Your task to perform on an android device: Open the calendar and show me this week's events? Image 0: 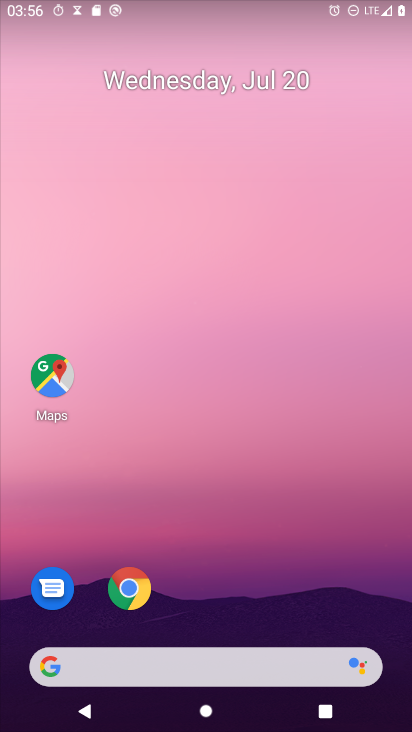
Step 0: drag from (190, 633) to (134, 51)
Your task to perform on an android device: Open the calendar and show me this week's events? Image 1: 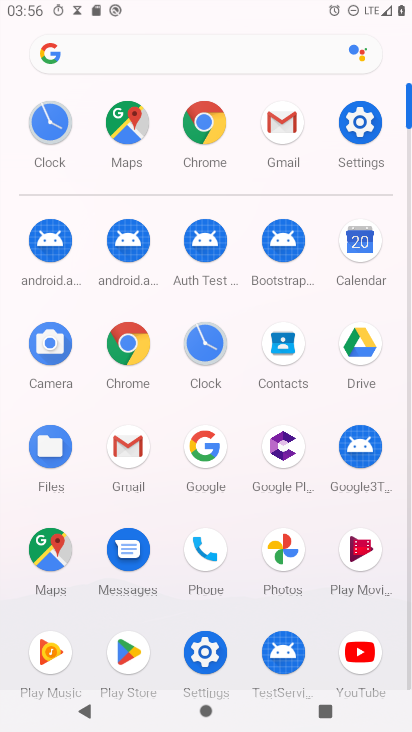
Step 1: click (364, 239)
Your task to perform on an android device: Open the calendar and show me this week's events? Image 2: 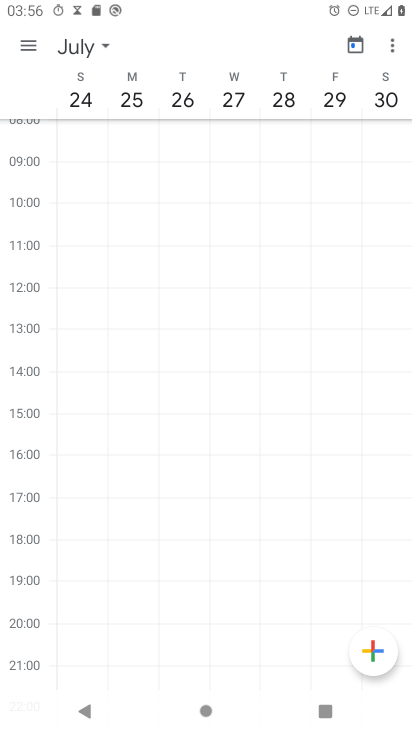
Step 2: click (355, 45)
Your task to perform on an android device: Open the calendar and show me this week's events? Image 3: 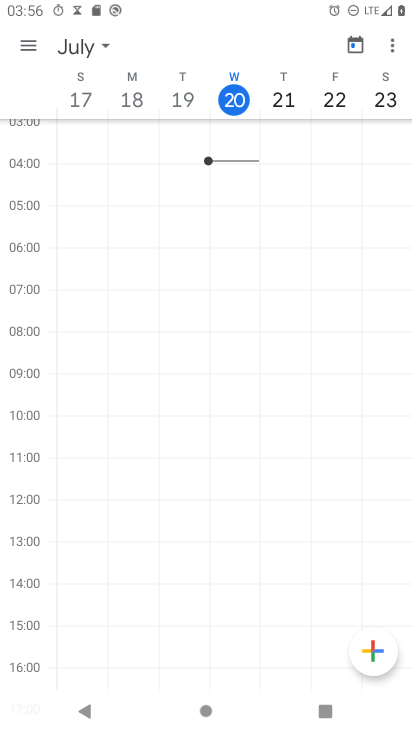
Step 3: task complete